Your task to perform on an android device: Go to Amazon Image 0: 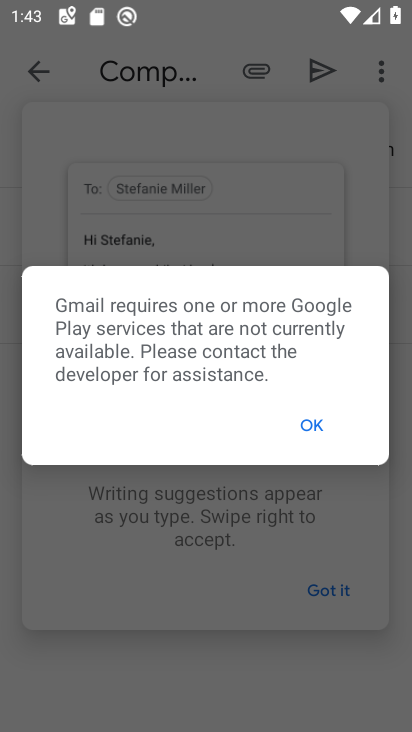
Step 0: press home button
Your task to perform on an android device: Go to Amazon Image 1: 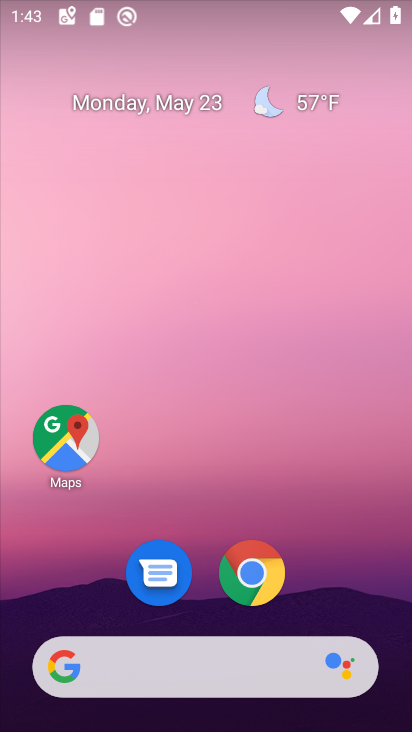
Step 1: click (255, 570)
Your task to perform on an android device: Go to Amazon Image 2: 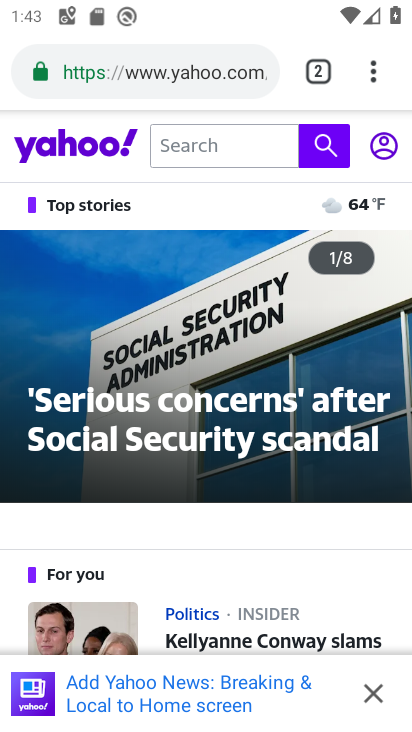
Step 2: click (322, 74)
Your task to perform on an android device: Go to Amazon Image 3: 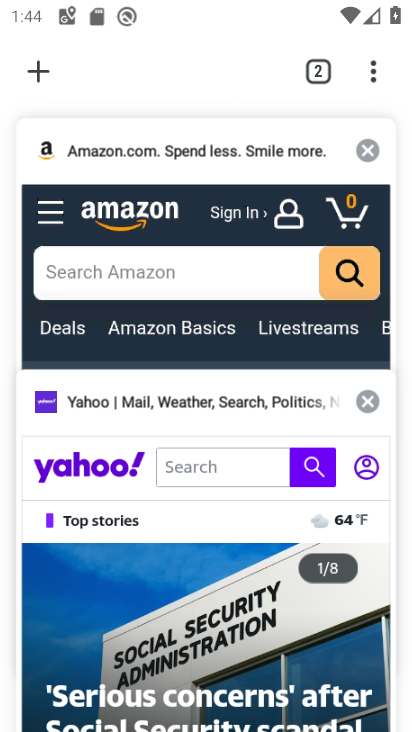
Step 3: click (197, 220)
Your task to perform on an android device: Go to Amazon Image 4: 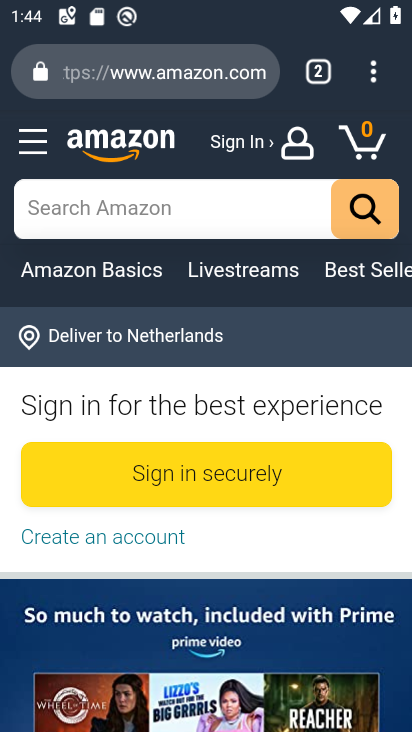
Step 4: task complete